Your task to perform on an android device: What's the weather today? Image 0: 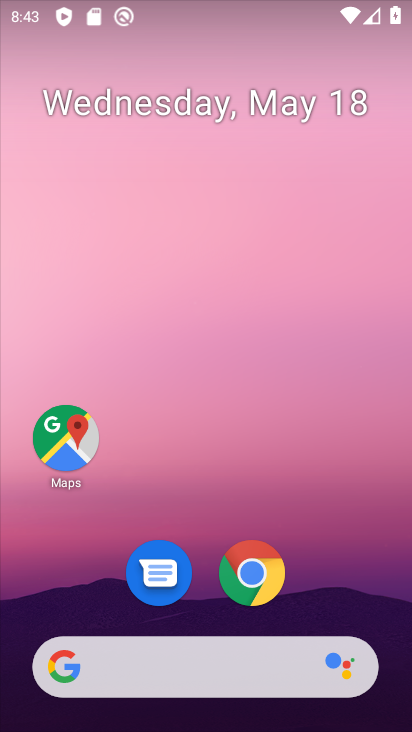
Step 0: drag from (219, 729) to (252, 78)
Your task to perform on an android device: What's the weather today? Image 1: 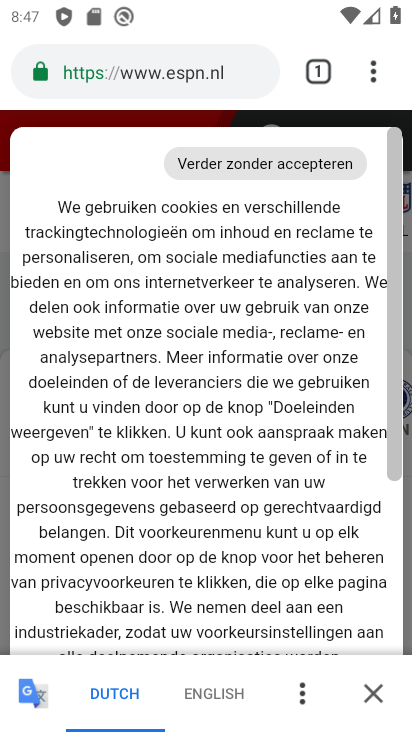
Step 1: press home button
Your task to perform on an android device: What's the weather today? Image 2: 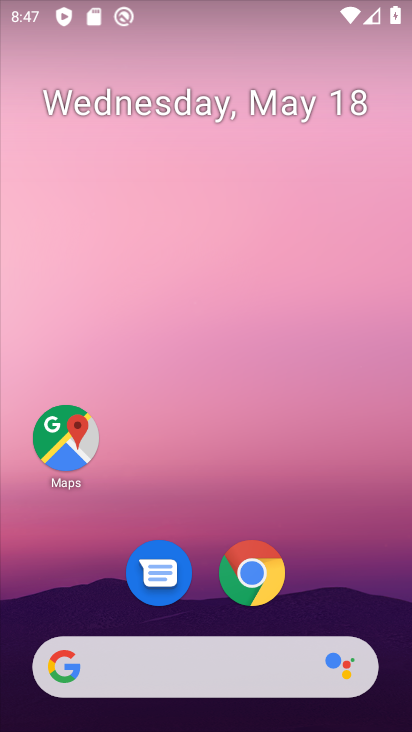
Step 2: click (141, 673)
Your task to perform on an android device: What's the weather today? Image 3: 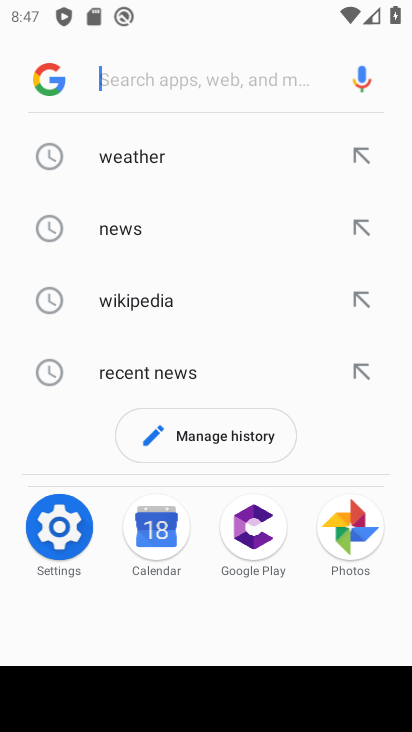
Step 3: type "What's the weather today?"
Your task to perform on an android device: What's the weather today? Image 4: 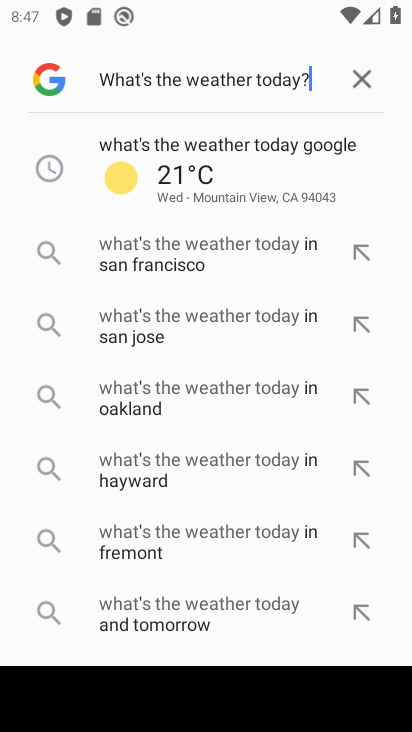
Step 4: click (303, 196)
Your task to perform on an android device: What's the weather today? Image 5: 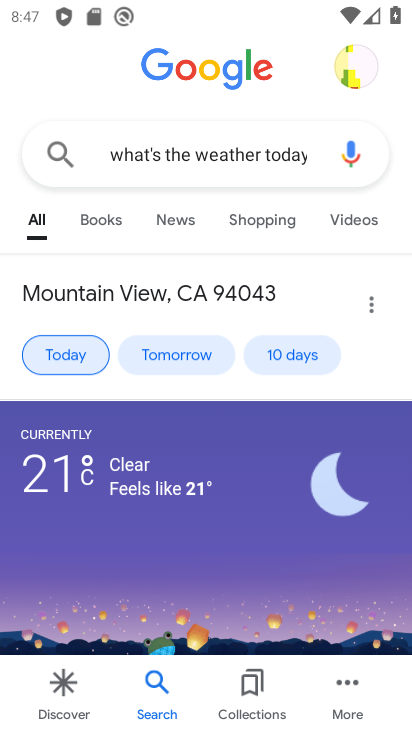
Step 5: task complete